Your task to perform on an android device: Turn off the flashlight Image 0: 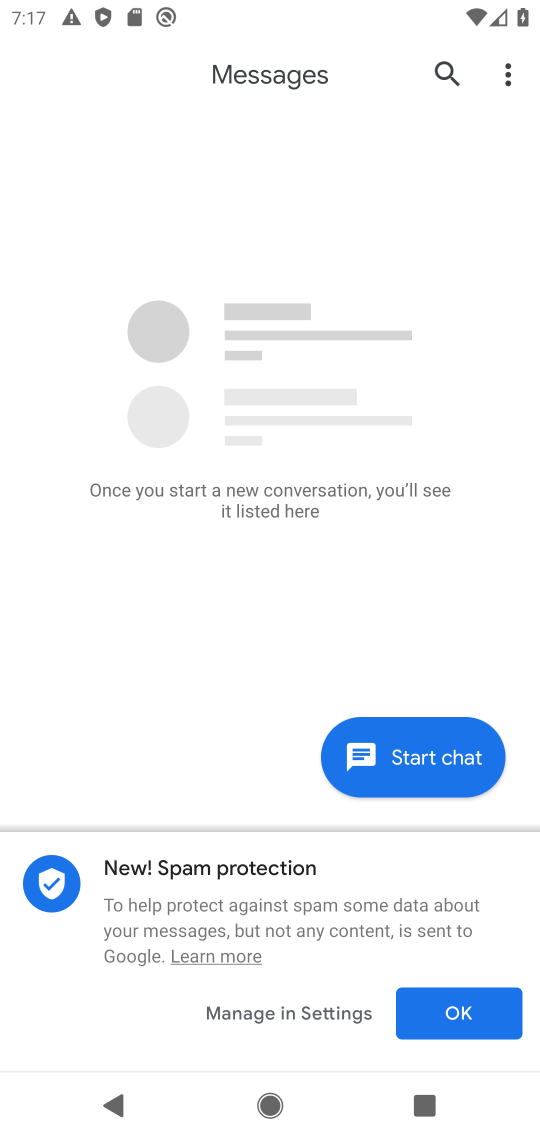
Step 0: press home button
Your task to perform on an android device: Turn off the flashlight Image 1: 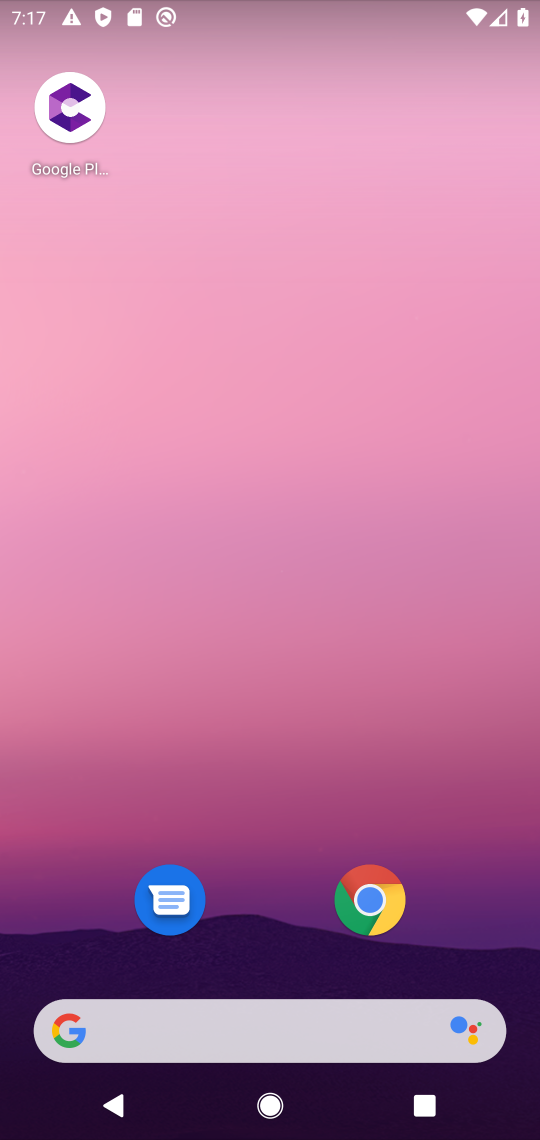
Step 1: drag from (298, 15) to (377, 982)
Your task to perform on an android device: Turn off the flashlight Image 2: 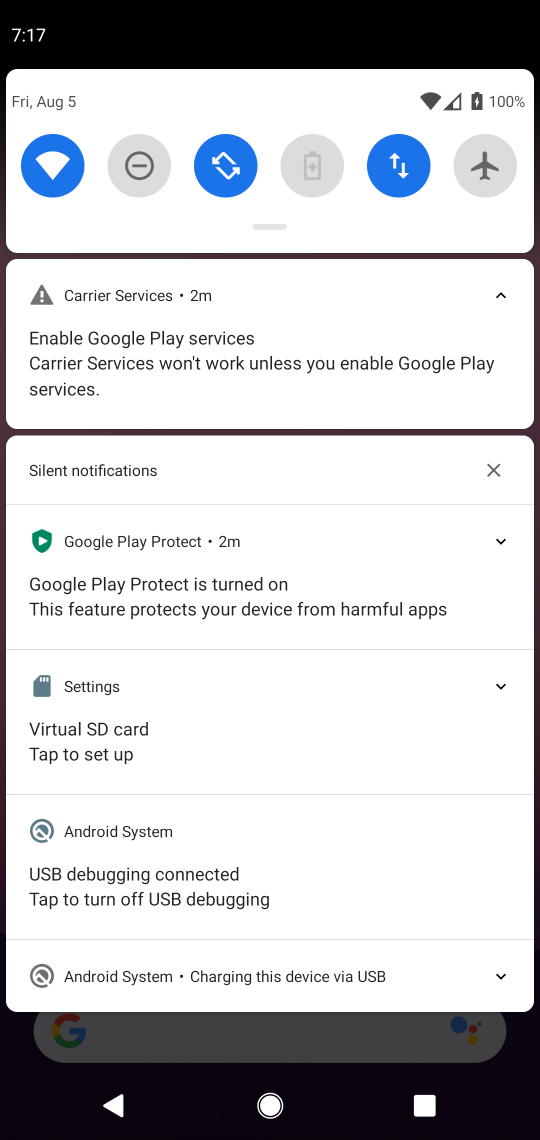
Step 2: drag from (302, 193) to (465, 1135)
Your task to perform on an android device: Turn off the flashlight Image 3: 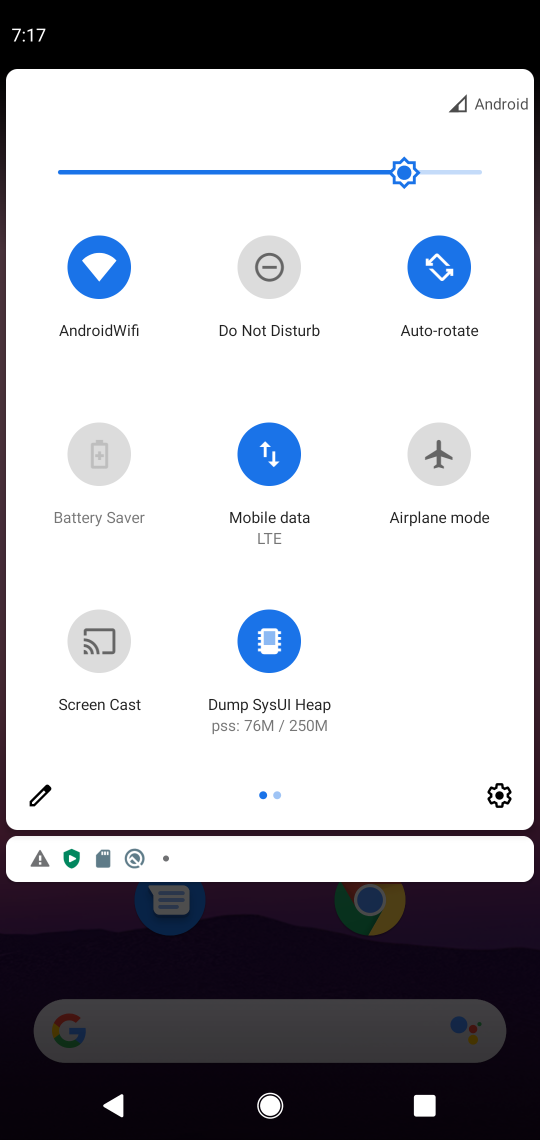
Step 3: click (44, 787)
Your task to perform on an android device: Turn off the flashlight Image 4: 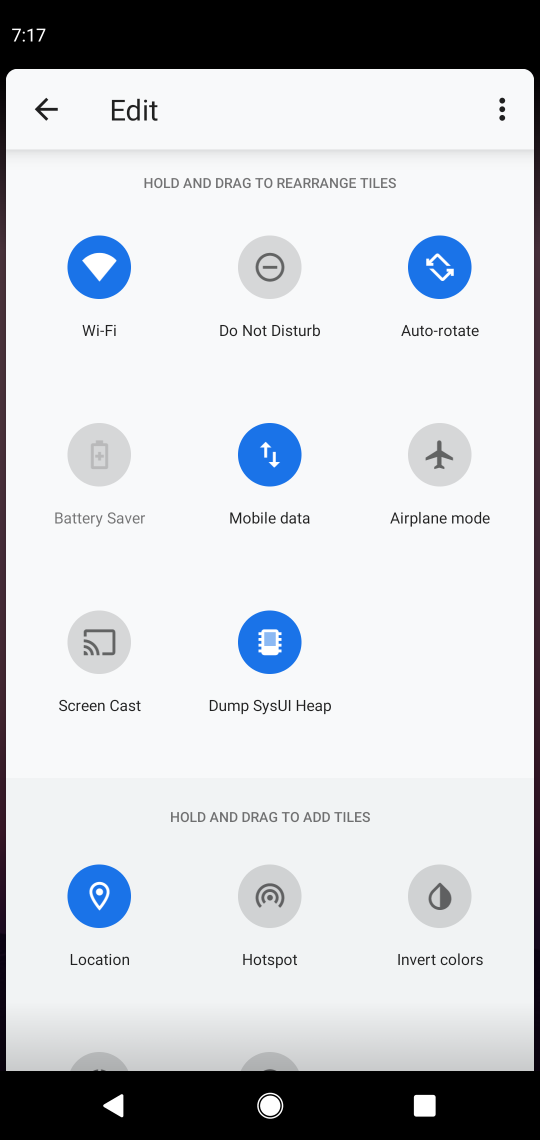
Step 4: task complete